Your task to perform on an android device: Set the phone to "Do not disturb". Image 0: 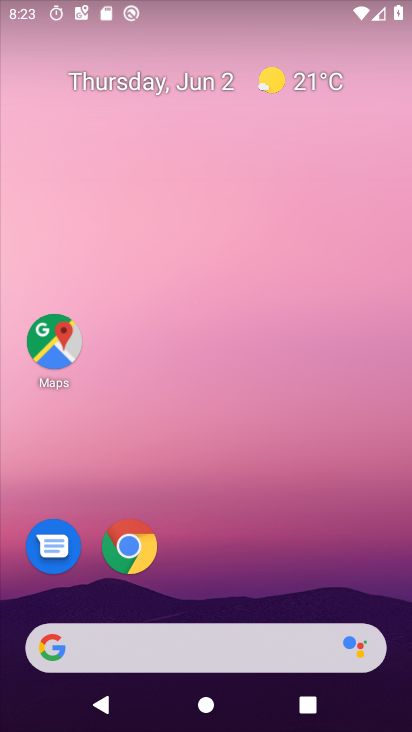
Step 0: drag from (310, 459) to (299, 189)
Your task to perform on an android device: Set the phone to "Do not disturb". Image 1: 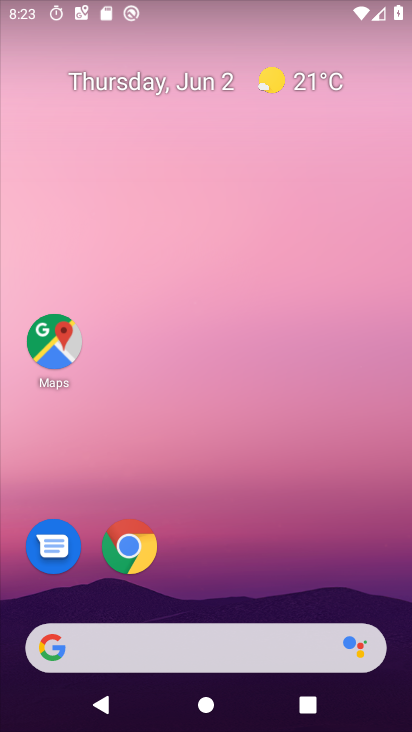
Step 1: drag from (247, 532) to (258, 141)
Your task to perform on an android device: Set the phone to "Do not disturb". Image 2: 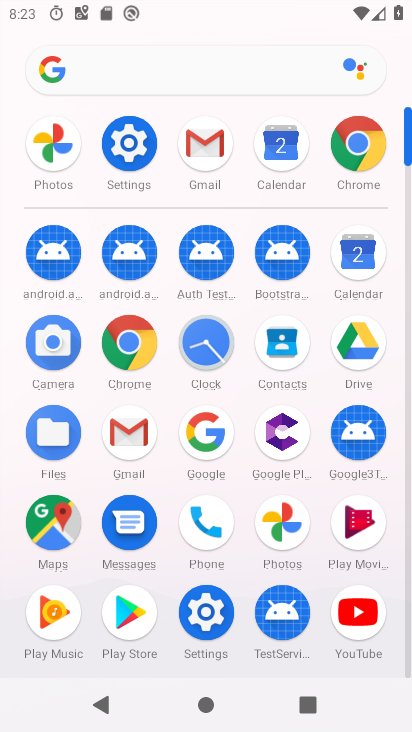
Step 2: click (147, 132)
Your task to perform on an android device: Set the phone to "Do not disturb". Image 3: 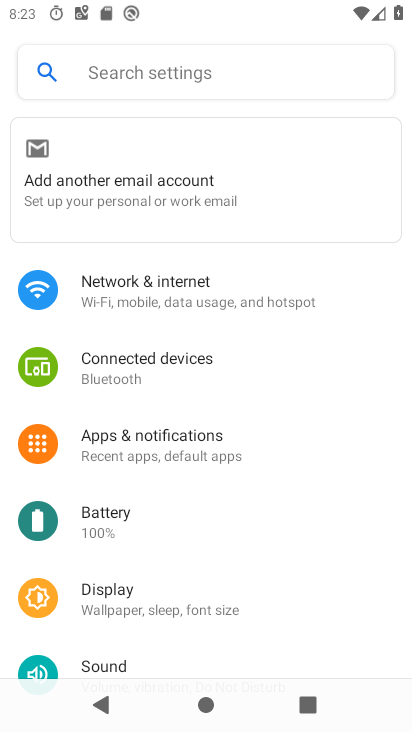
Step 3: drag from (266, 595) to (295, 291)
Your task to perform on an android device: Set the phone to "Do not disturb". Image 4: 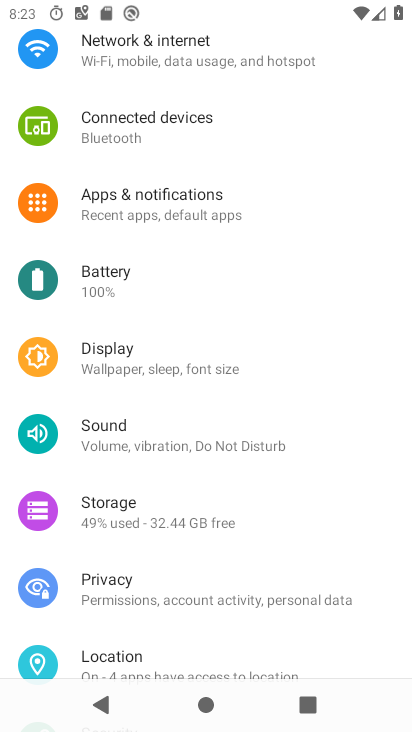
Step 4: click (214, 429)
Your task to perform on an android device: Set the phone to "Do not disturb". Image 5: 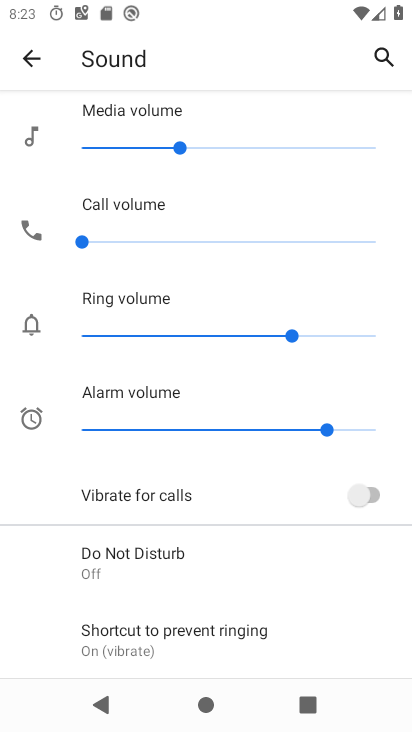
Step 5: click (190, 562)
Your task to perform on an android device: Set the phone to "Do not disturb". Image 6: 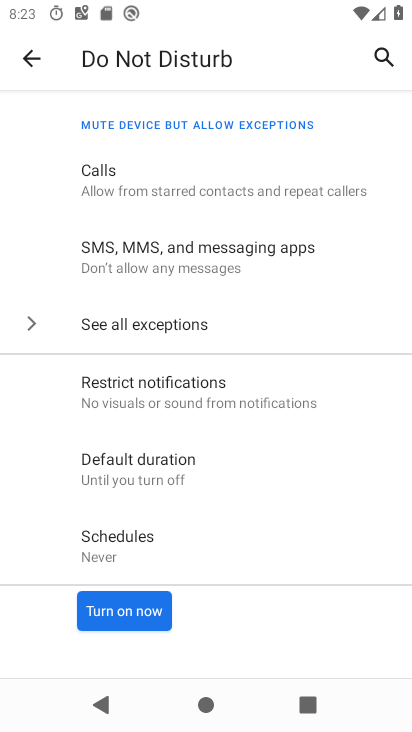
Step 6: click (136, 608)
Your task to perform on an android device: Set the phone to "Do not disturb". Image 7: 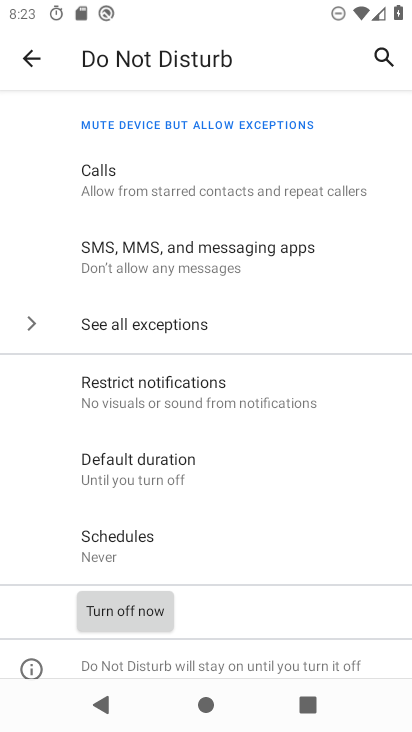
Step 7: task complete